Your task to perform on an android device: visit the assistant section in the google photos Image 0: 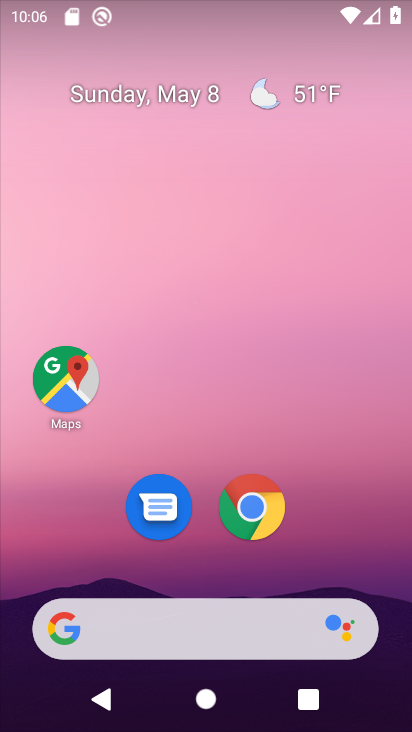
Step 0: drag from (202, 571) to (210, 35)
Your task to perform on an android device: visit the assistant section in the google photos Image 1: 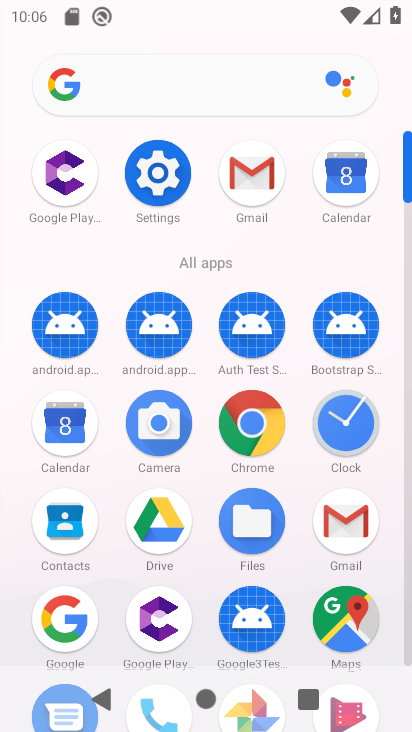
Step 1: drag from (203, 605) to (193, 137)
Your task to perform on an android device: visit the assistant section in the google photos Image 2: 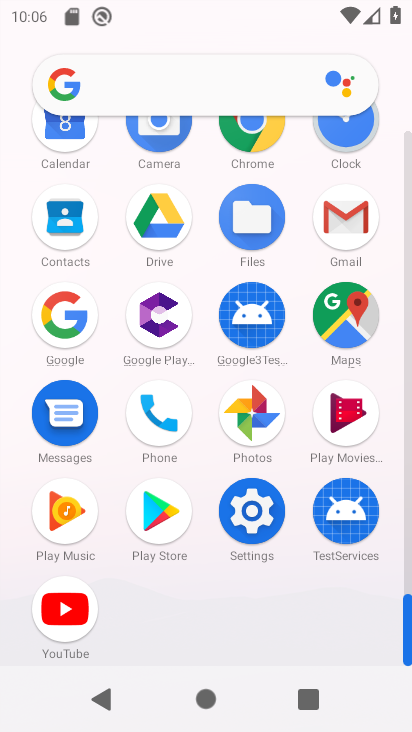
Step 2: click (247, 403)
Your task to perform on an android device: visit the assistant section in the google photos Image 3: 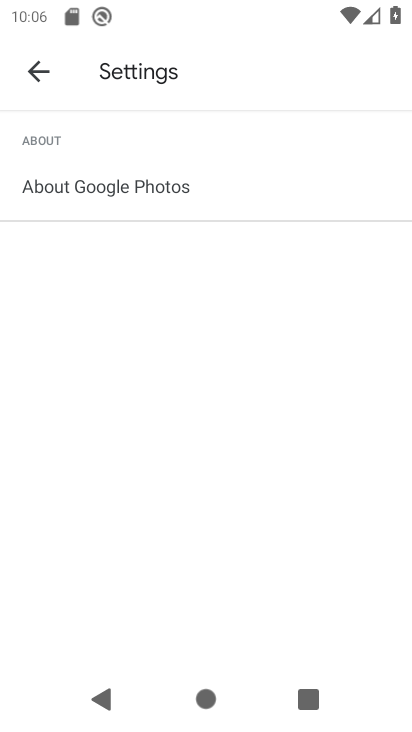
Step 3: click (40, 72)
Your task to perform on an android device: visit the assistant section in the google photos Image 4: 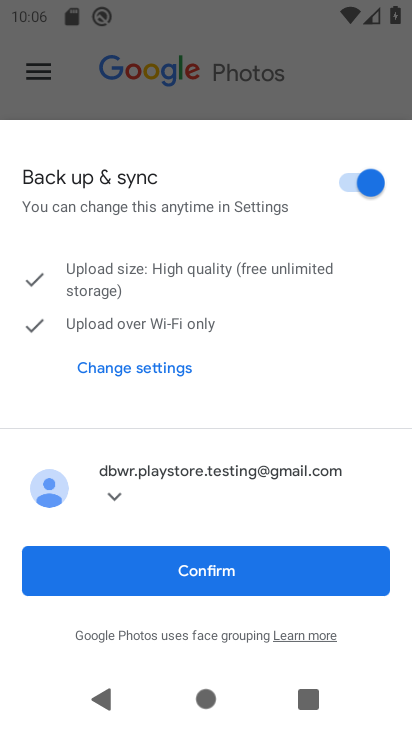
Step 4: click (210, 569)
Your task to perform on an android device: visit the assistant section in the google photos Image 5: 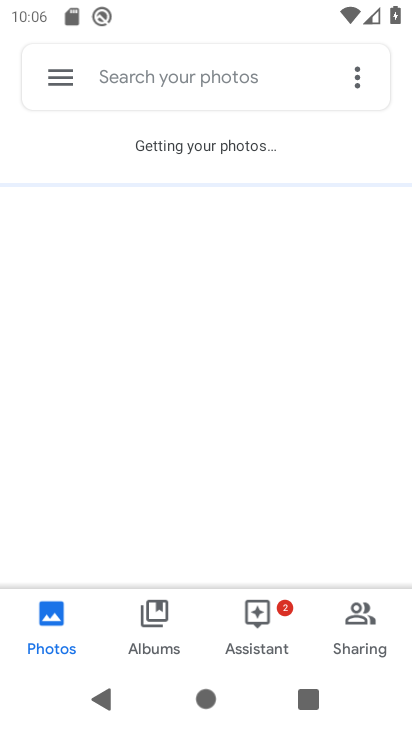
Step 5: click (254, 609)
Your task to perform on an android device: visit the assistant section in the google photos Image 6: 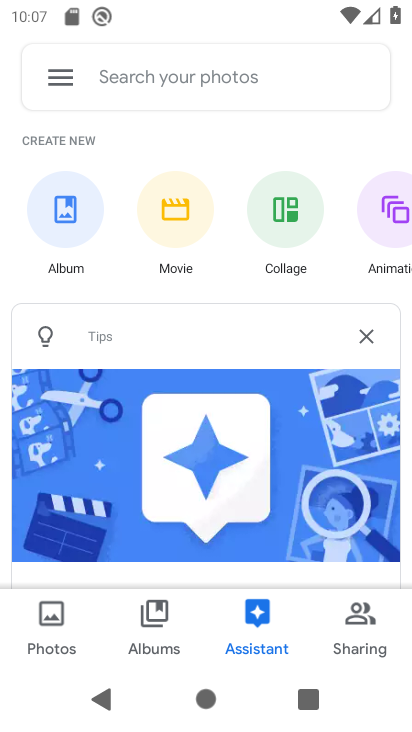
Step 6: task complete